Your task to perform on an android device: Open display settings Image 0: 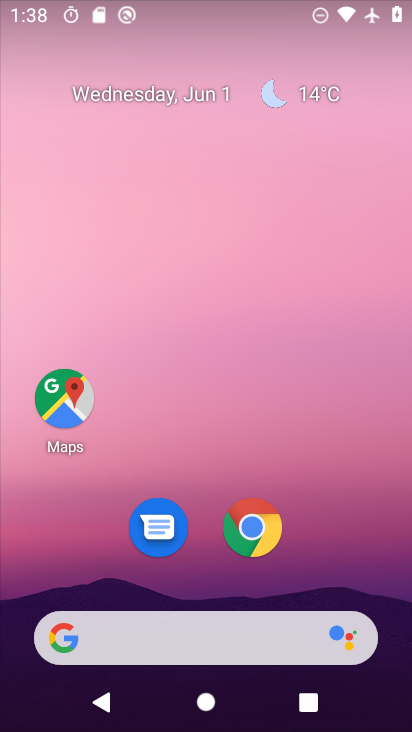
Step 0: drag from (240, 658) to (204, 72)
Your task to perform on an android device: Open display settings Image 1: 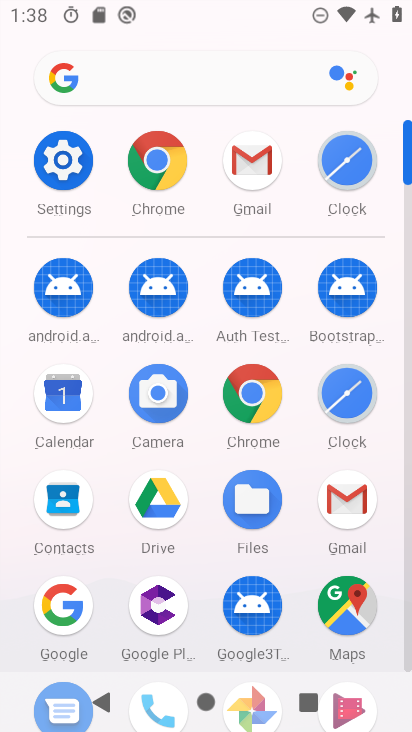
Step 1: click (69, 181)
Your task to perform on an android device: Open display settings Image 2: 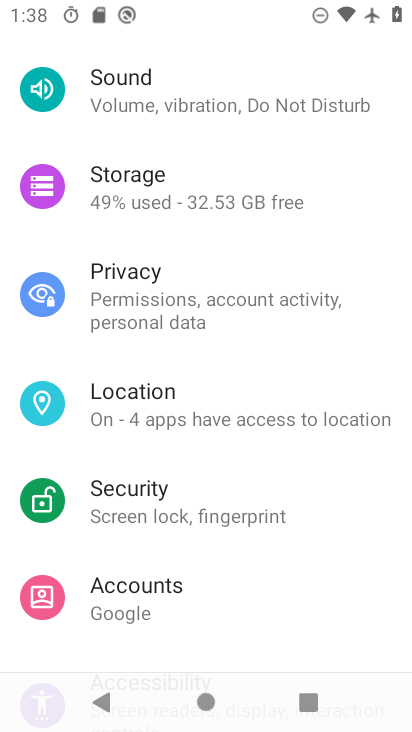
Step 2: drag from (185, 286) to (168, 560)
Your task to perform on an android device: Open display settings Image 3: 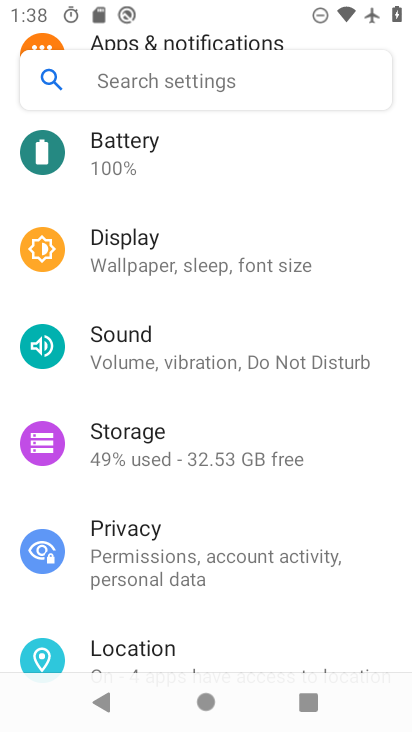
Step 3: click (196, 263)
Your task to perform on an android device: Open display settings Image 4: 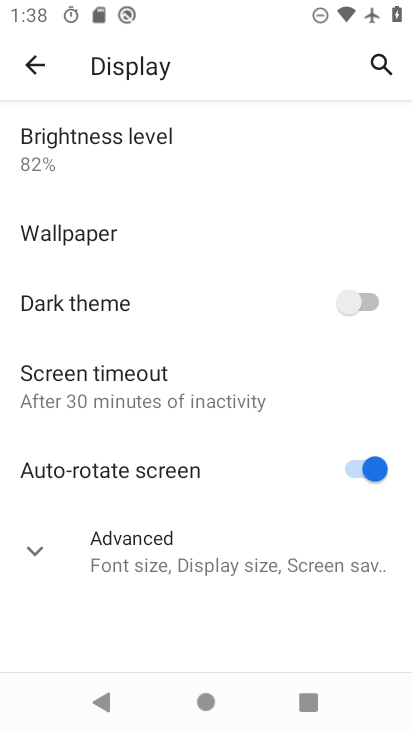
Step 4: task complete